Your task to perform on an android device: add a contact Image 0: 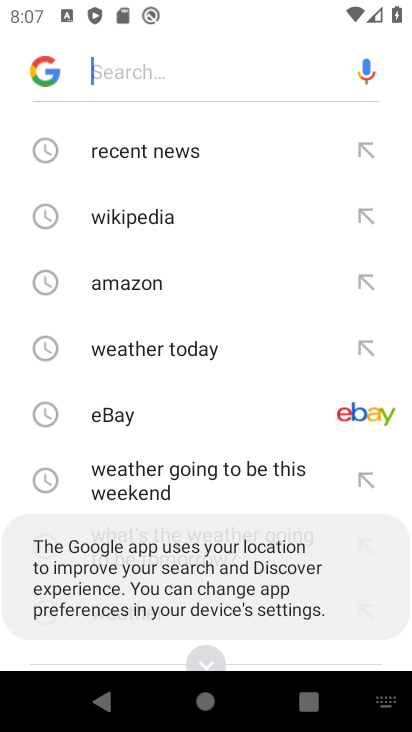
Step 0: press home button
Your task to perform on an android device: add a contact Image 1: 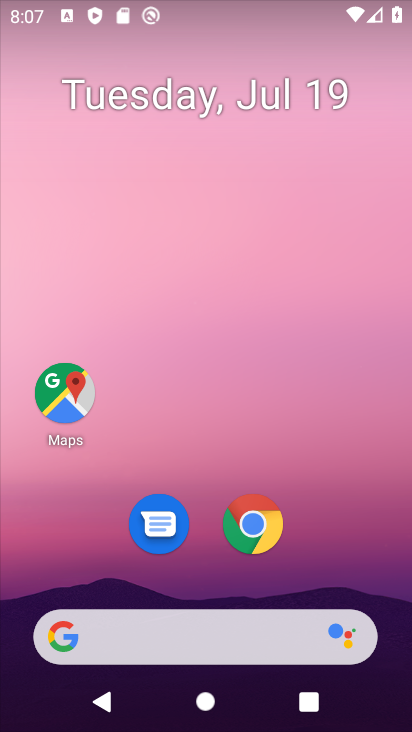
Step 1: drag from (313, 542) to (367, 62)
Your task to perform on an android device: add a contact Image 2: 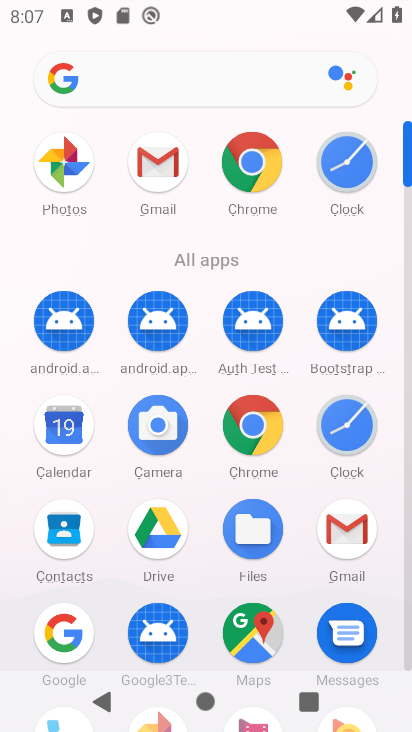
Step 2: click (72, 531)
Your task to perform on an android device: add a contact Image 3: 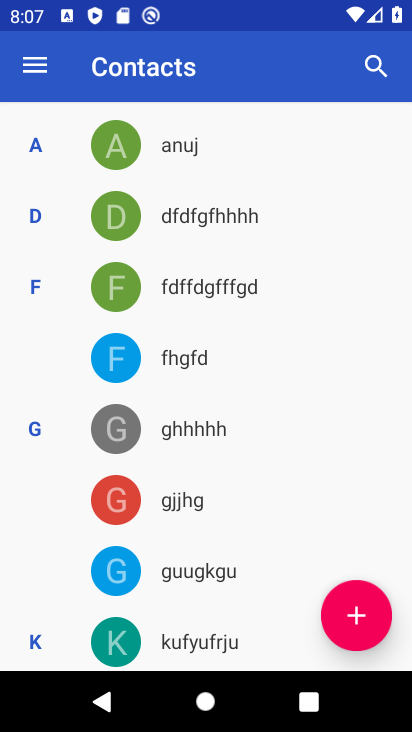
Step 3: click (353, 610)
Your task to perform on an android device: add a contact Image 4: 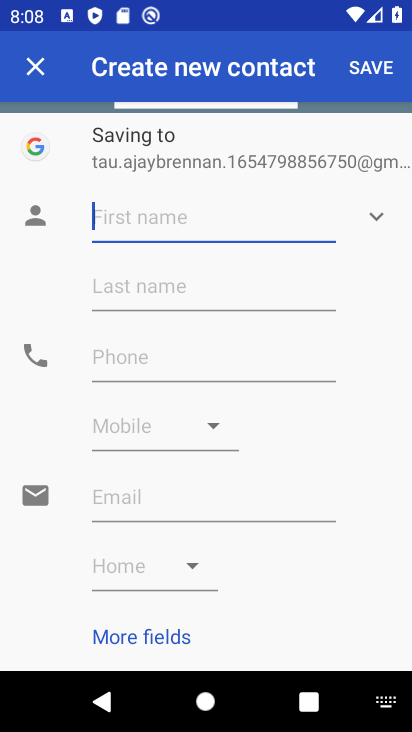
Step 4: type "Hare Ram Hare Krishna"
Your task to perform on an android device: add a contact Image 5: 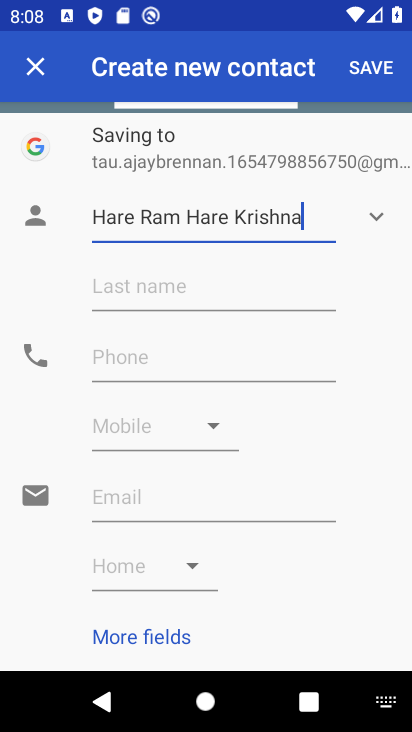
Step 5: click (238, 369)
Your task to perform on an android device: add a contact Image 6: 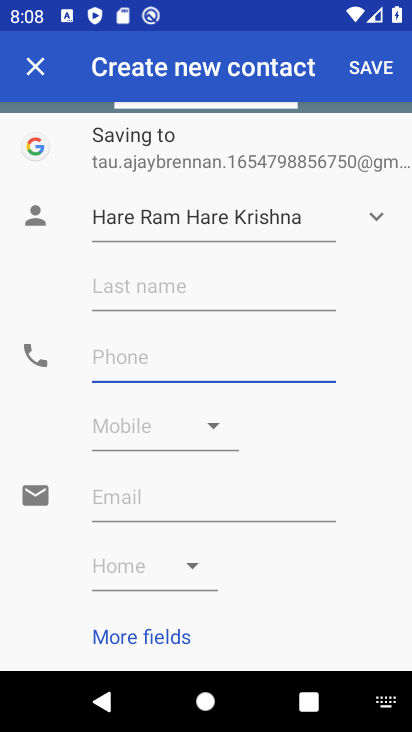
Step 6: type "91999777555333"
Your task to perform on an android device: add a contact Image 7: 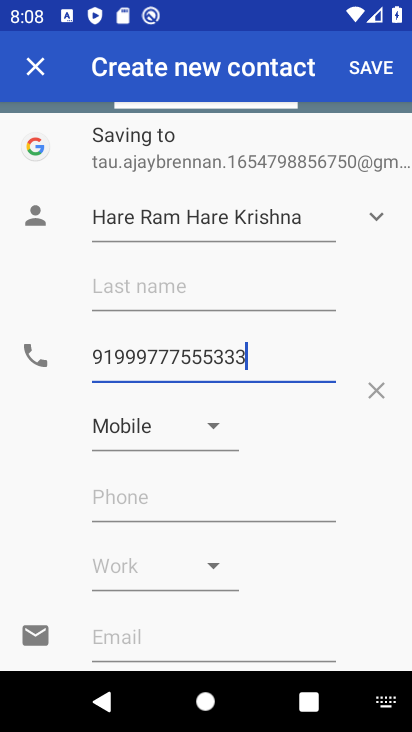
Step 7: click (369, 72)
Your task to perform on an android device: add a contact Image 8: 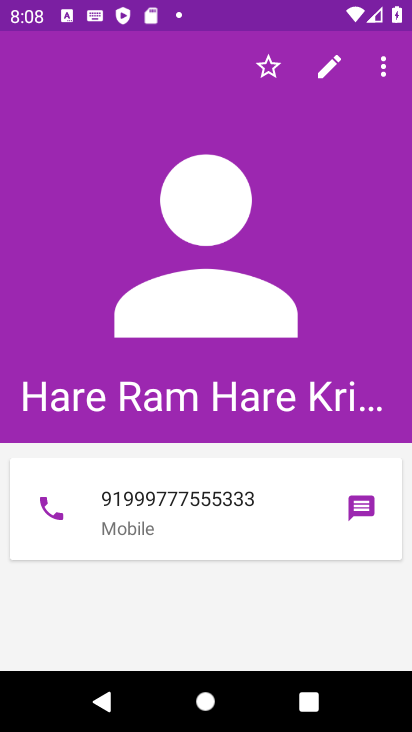
Step 8: task complete